Your task to perform on an android device: turn off airplane mode Image 0: 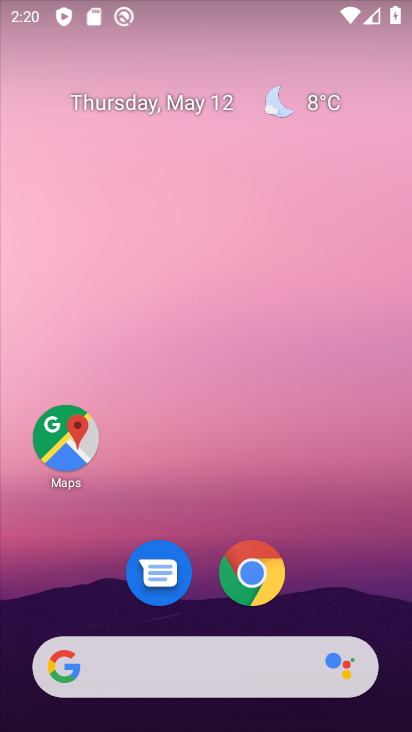
Step 0: drag from (300, 8) to (276, 361)
Your task to perform on an android device: turn off airplane mode Image 1: 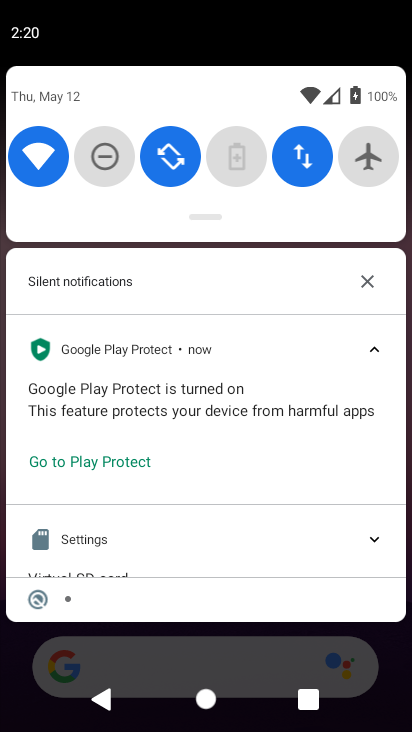
Step 1: task complete